Your task to perform on an android device: What's the weather going to be this weekend? Image 0: 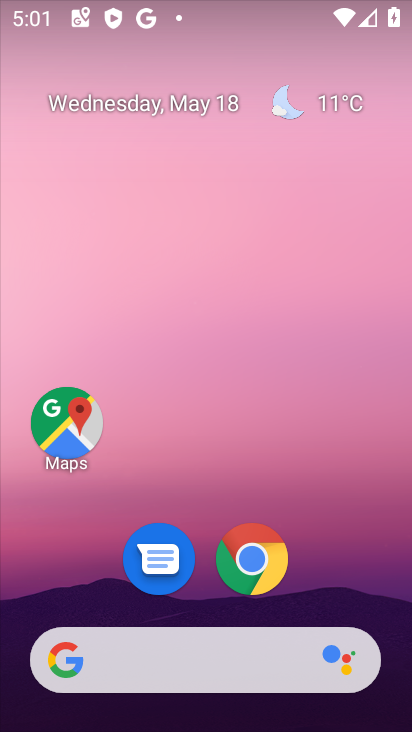
Step 0: click (296, 95)
Your task to perform on an android device: What's the weather going to be this weekend? Image 1: 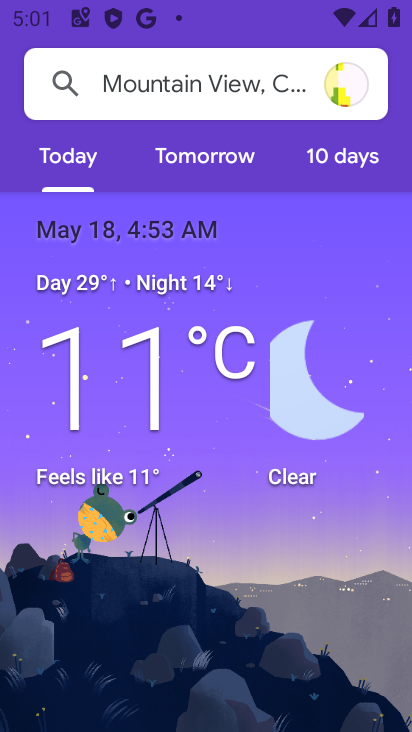
Step 1: click (314, 149)
Your task to perform on an android device: What's the weather going to be this weekend? Image 2: 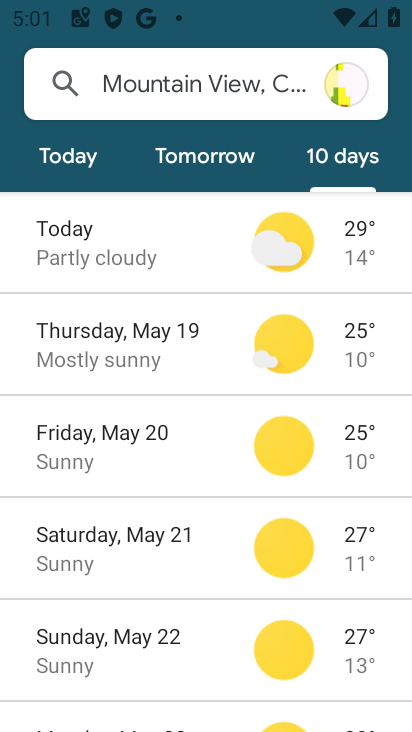
Step 2: task complete